Your task to perform on an android device: add a label to a message in the gmail app Image 0: 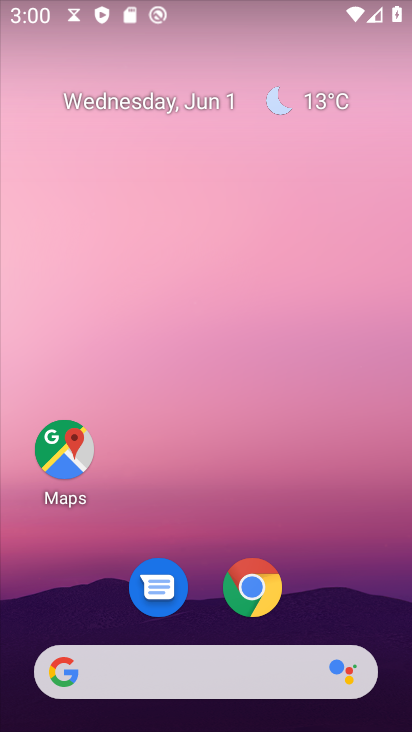
Step 0: drag from (217, 274) to (170, 2)
Your task to perform on an android device: add a label to a message in the gmail app Image 1: 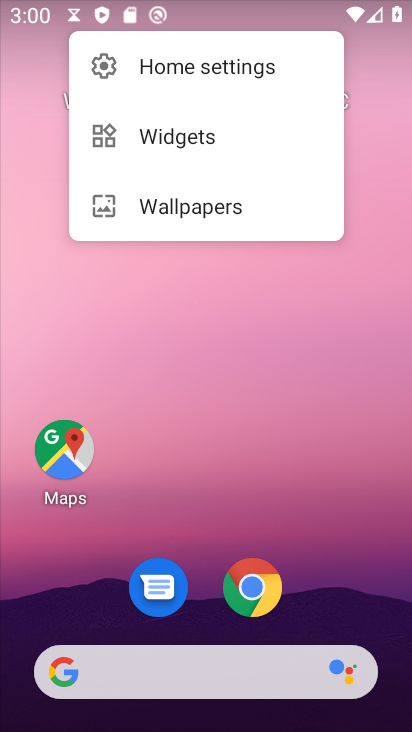
Step 1: drag from (167, 6) to (187, 141)
Your task to perform on an android device: add a label to a message in the gmail app Image 2: 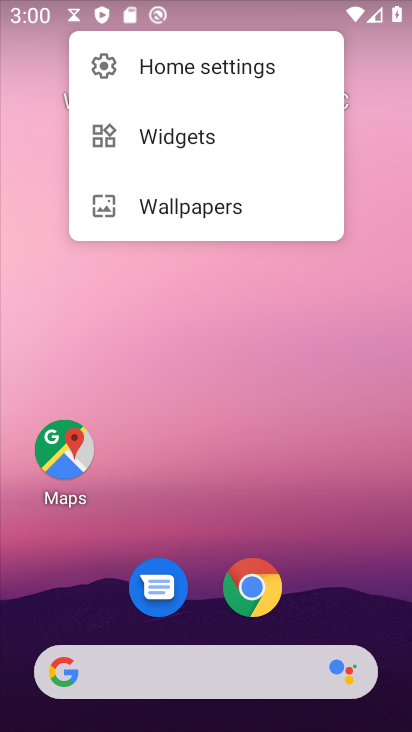
Step 2: click (181, 320)
Your task to perform on an android device: add a label to a message in the gmail app Image 3: 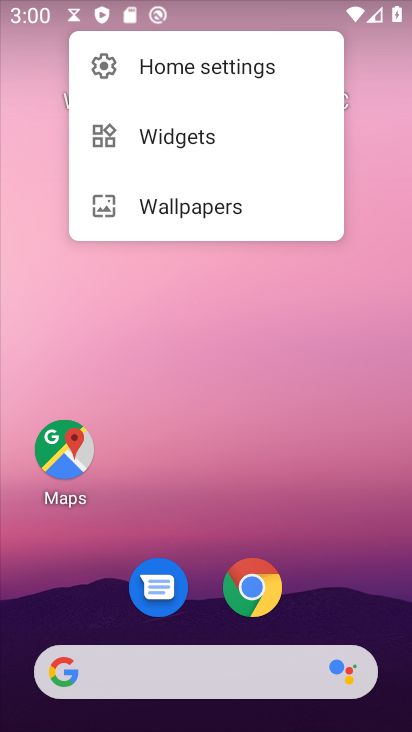
Step 3: click (182, 313)
Your task to perform on an android device: add a label to a message in the gmail app Image 4: 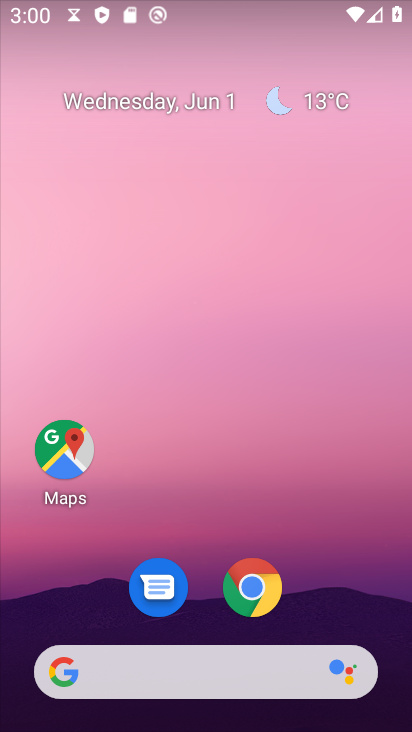
Step 4: press back button
Your task to perform on an android device: add a label to a message in the gmail app Image 5: 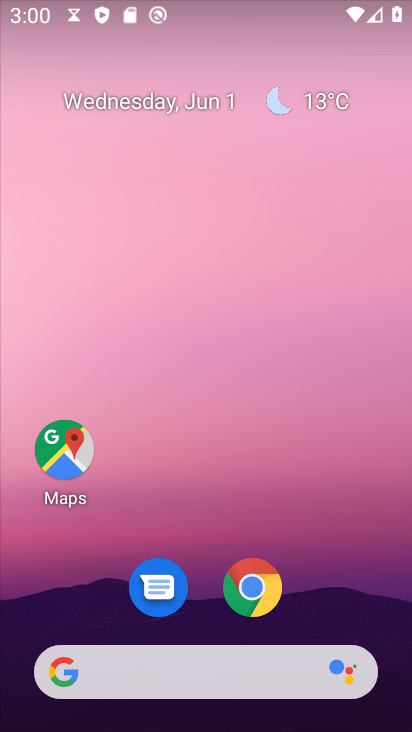
Step 5: drag from (251, 558) to (213, 257)
Your task to perform on an android device: add a label to a message in the gmail app Image 6: 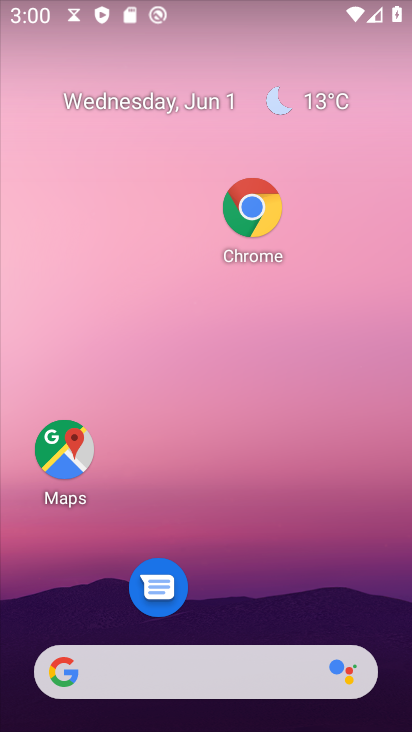
Step 6: drag from (222, 355) to (218, 273)
Your task to perform on an android device: add a label to a message in the gmail app Image 7: 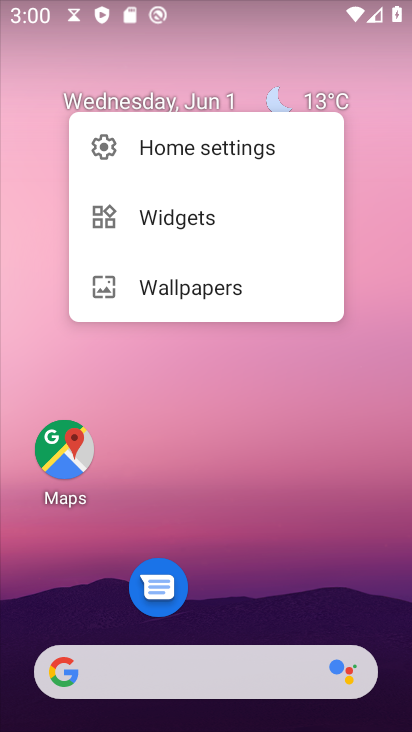
Step 7: drag from (271, 615) to (139, 78)
Your task to perform on an android device: add a label to a message in the gmail app Image 8: 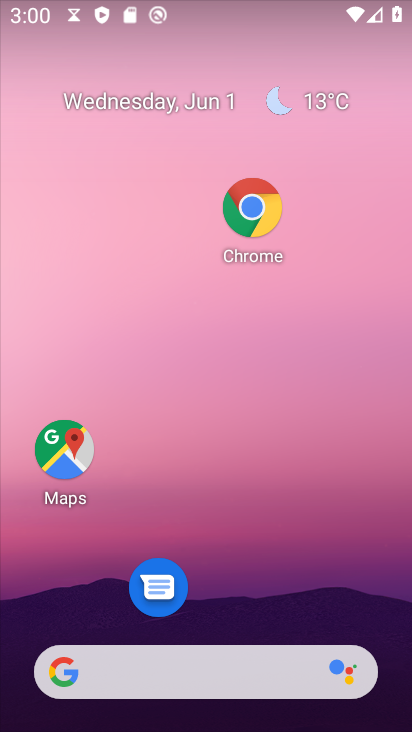
Step 8: click (206, 239)
Your task to perform on an android device: add a label to a message in the gmail app Image 9: 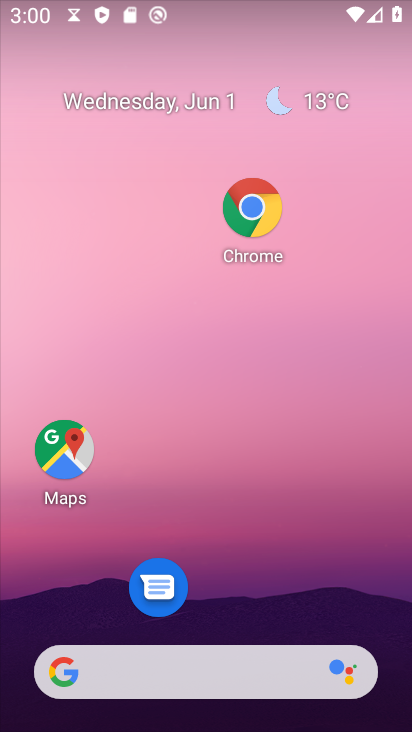
Step 9: drag from (144, 238) to (175, 129)
Your task to perform on an android device: add a label to a message in the gmail app Image 10: 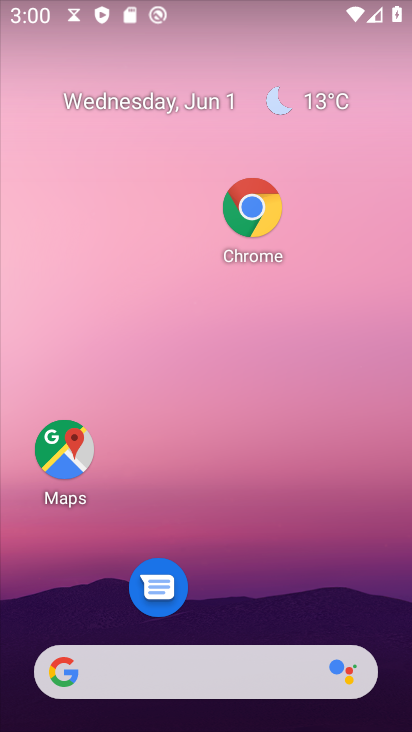
Step 10: drag from (242, 380) to (242, 121)
Your task to perform on an android device: add a label to a message in the gmail app Image 11: 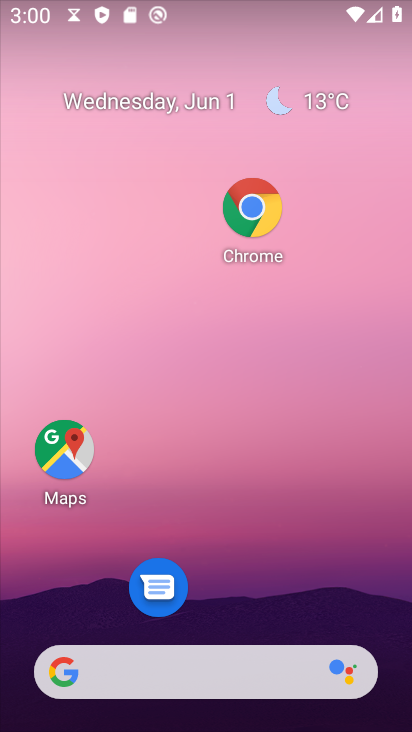
Step 11: click (254, 158)
Your task to perform on an android device: add a label to a message in the gmail app Image 12: 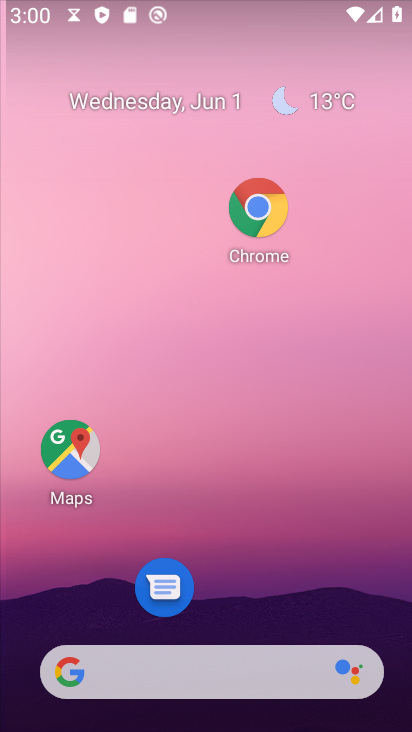
Step 12: press back button
Your task to perform on an android device: add a label to a message in the gmail app Image 13: 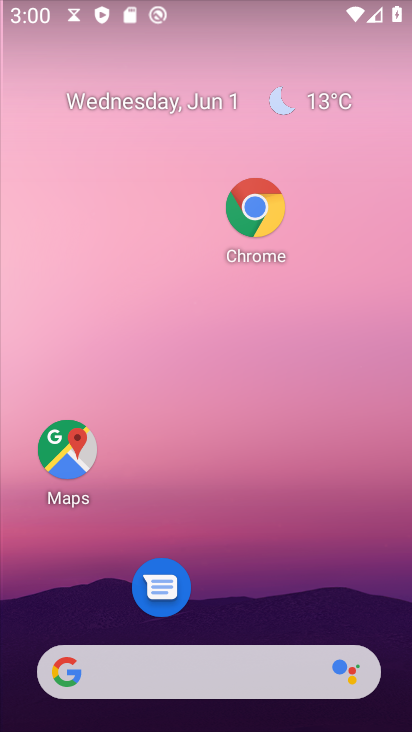
Step 13: click (163, 251)
Your task to perform on an android device: add a label to a message in the gmail app Image 14: 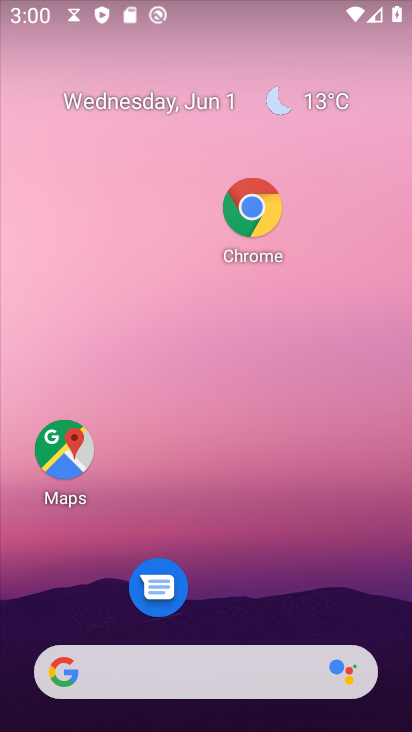
Step 14: drag from (124, 162) to (219, 81)
Your task to perform on an android device: add a label to a message in the gmail app Image 15: 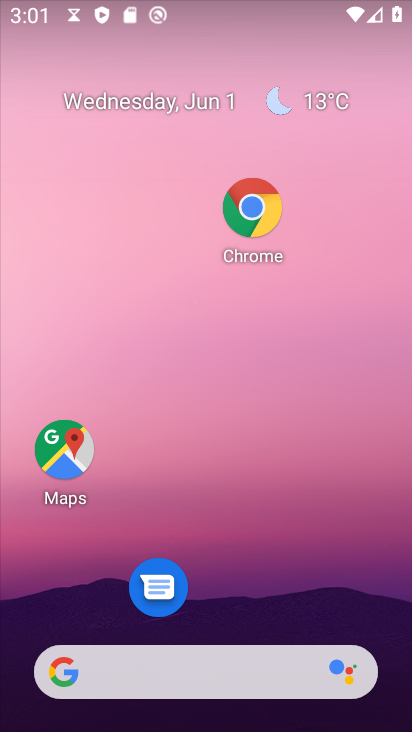
Step 15: drag from (270, 490) to (210, 94)
Your task to perform on an android device: add a label to a message in the gmail app Image 16: 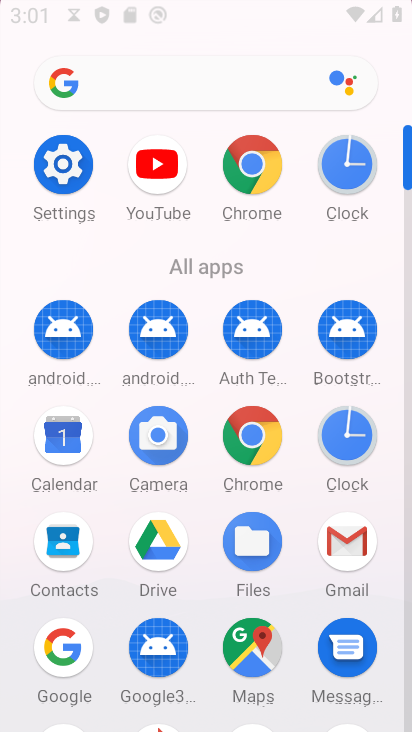
Step 16: drag from (293, 509) to (205, 19)
Your task to perform on an android device: add a label to a message in the gmail app Image 17: 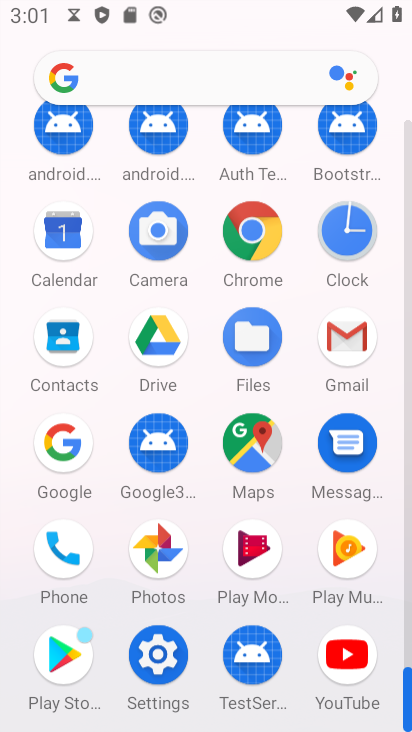
Step 17: drag from (251, 383) to (156, 5)
Your task to perform on an android device: add a label to a message in the gmail app Image 18: 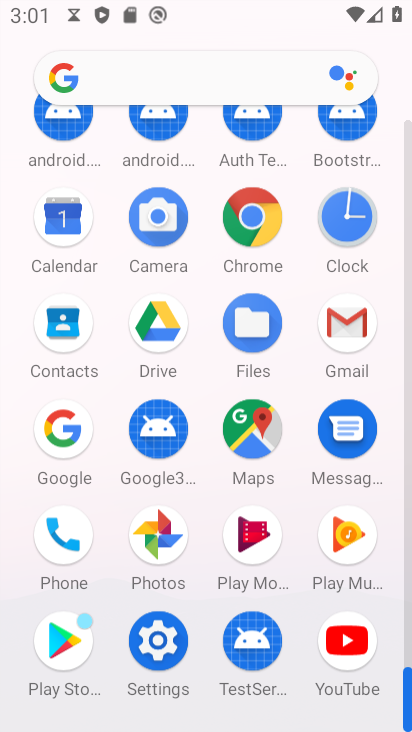
Step 18: click (222, 16)
Your task to perform on an android device: add a label to a message in the gmail app Image 19: 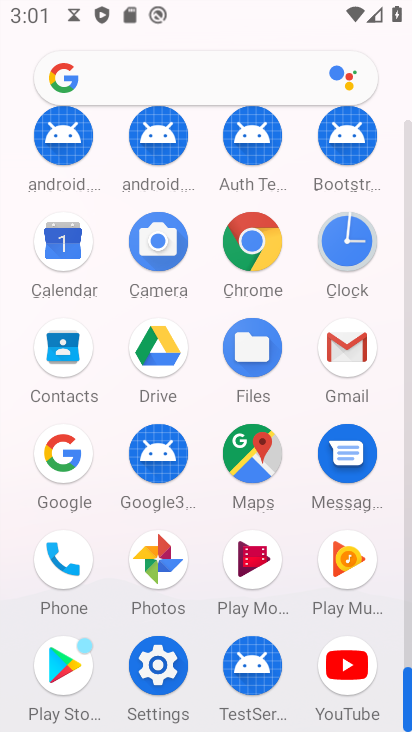
Step 19: click (338, 343)
Your task to perform on an android device: add a label to a message in the gmail app Image 20: 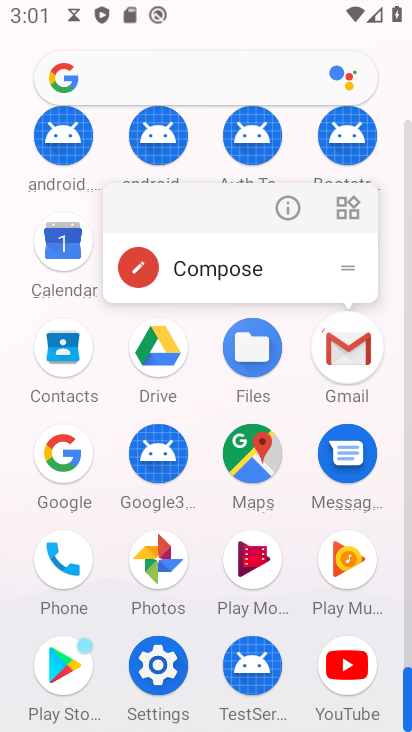
Step 20: click (338, 343)
Your task to perform on an android device: add a label to a message in the gmail app Image 21: 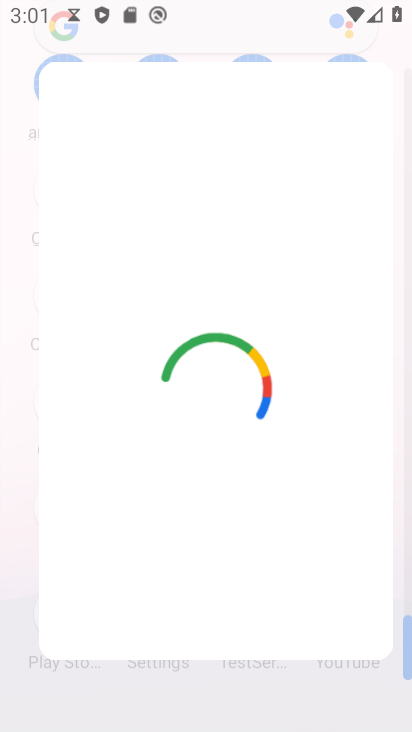
Step 21: click (339, 344)
Your task to perform on an android device: add a label to a message in the gmail app Image 22: 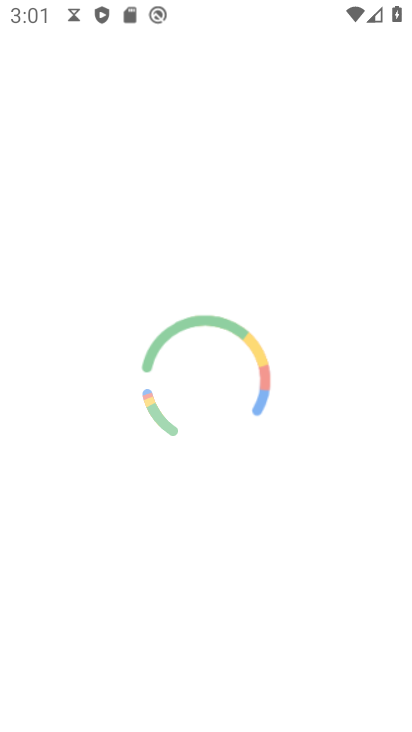
Step 22: click (339, 344)
Your task to perform on an android device: add a label to a message in the gmail app Image 23: 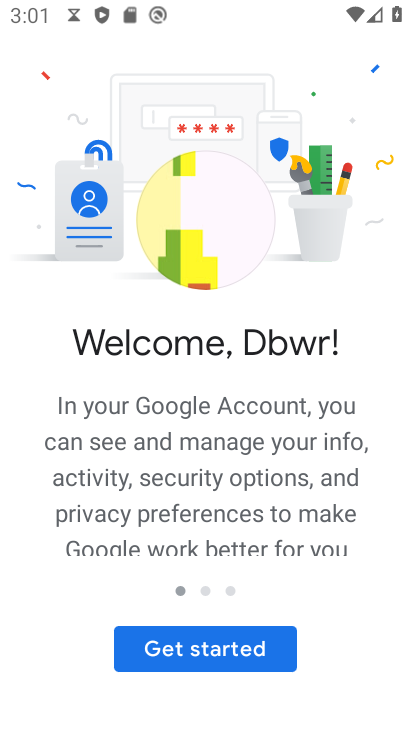
Step 23: click (196, 634)
Your task to perform on an android device: add a label to a message in the gmail app Image 24: 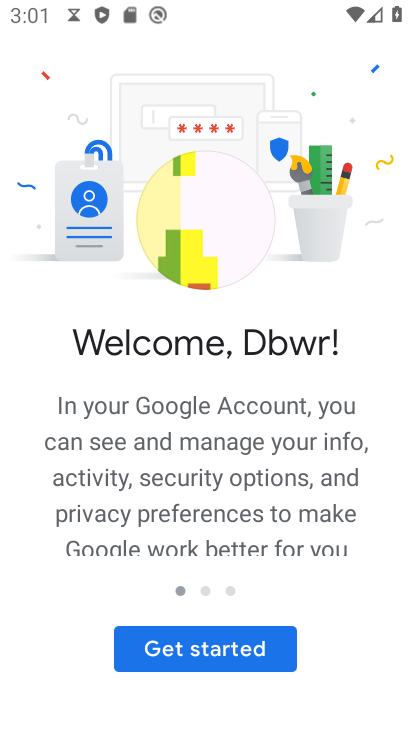
Step 24: click (193, 644)
Your task to perform on an android device: add a label to a message in the gmail app Image 25: 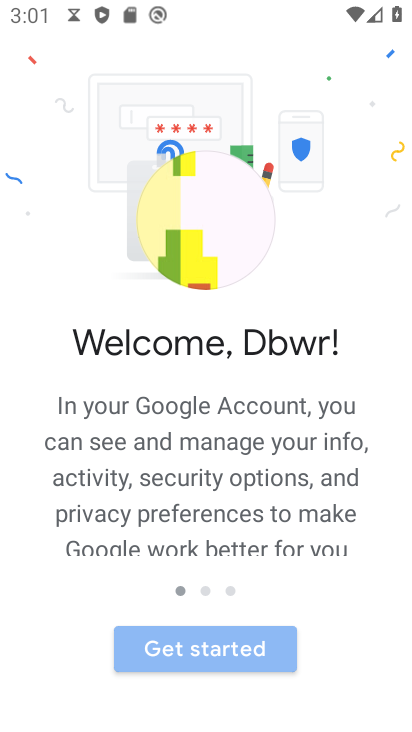
Step 25: click (193, 644)
Your task to perform on an android device: add a label to a message in the gmail app Image 26: 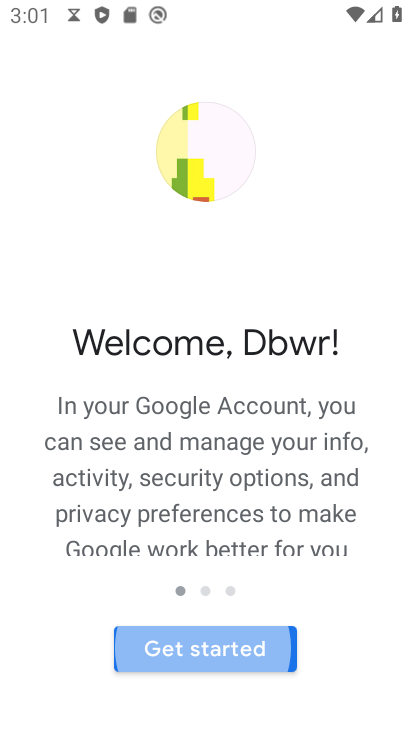
Step 26: click (193, 645)
Your task to perform on an android device: add a label to a message in the gmail app Image 27: 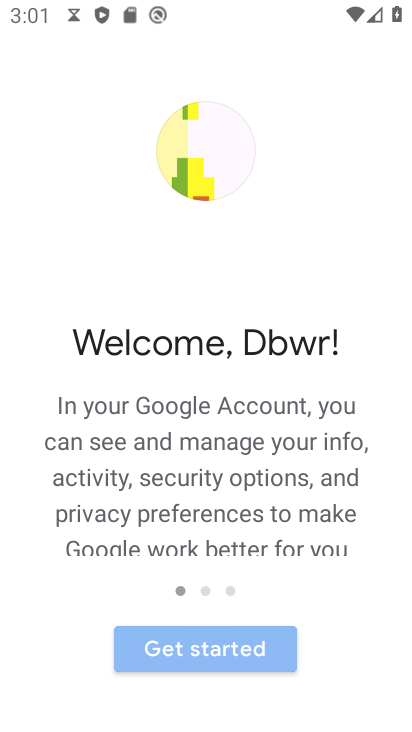
Step 27: click (193, 645)
Your task to perform on an android device: add a label to a message in the gmail app Image 28: 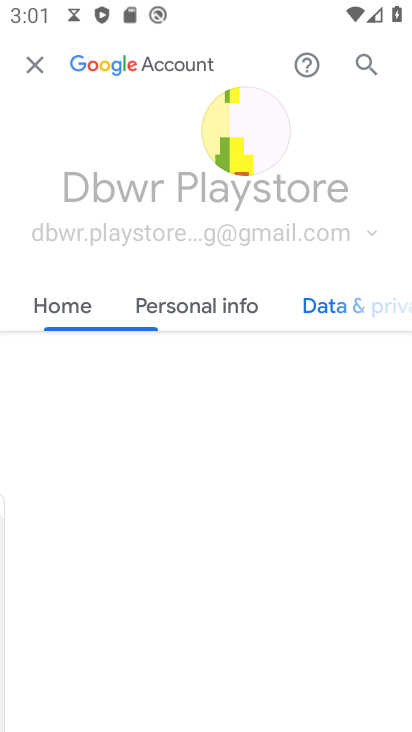
Step 28: click (202, 651)
Your task to perform on an android device: add a label to a message in the gmail app Image 29: 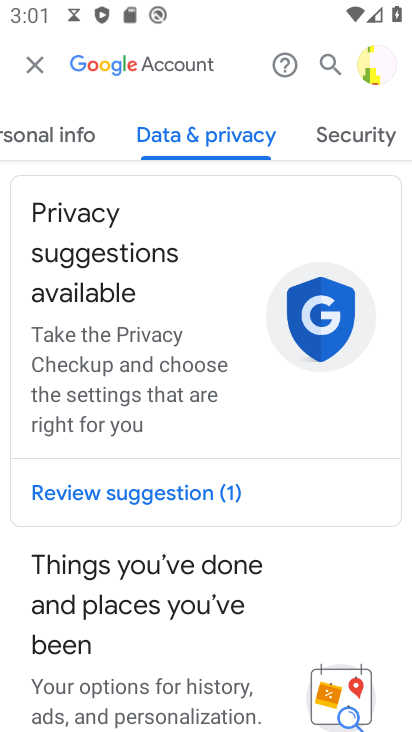
Step 29: drag from (257, 630) to (185, 152)
Your task to perform on an android device: add a label to a message in the gmail app Image 30: 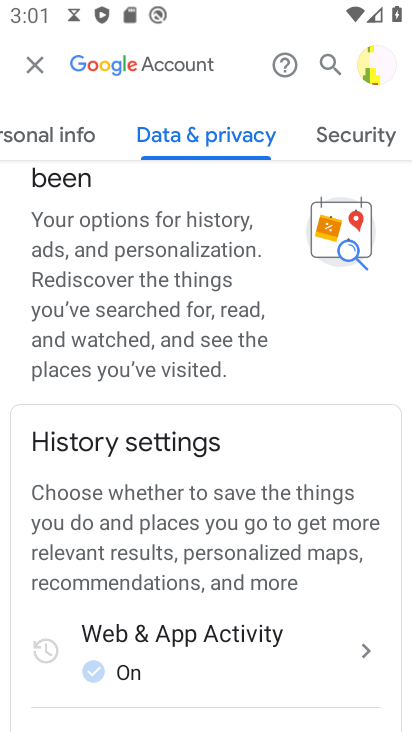
Step 30: drag from (260, 524) to (209, 177)
Your task to perform on an android device: add a label to a message in the gmail app Image 31: 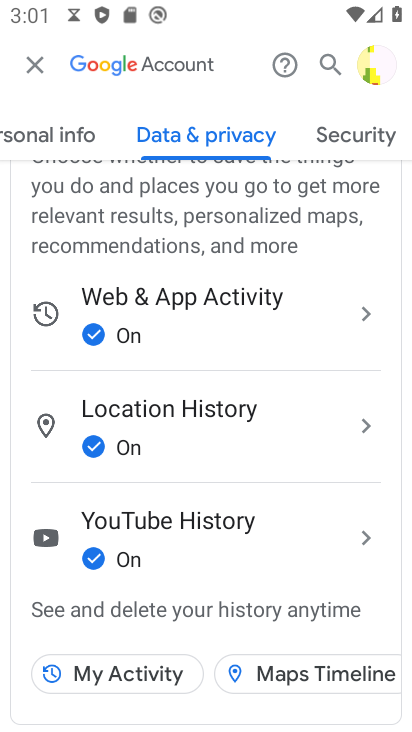
Step 31: drag from (209, 548) to (121, 115)
Your task to perform on an android device: add a label to a message in the gmail app Image 32: 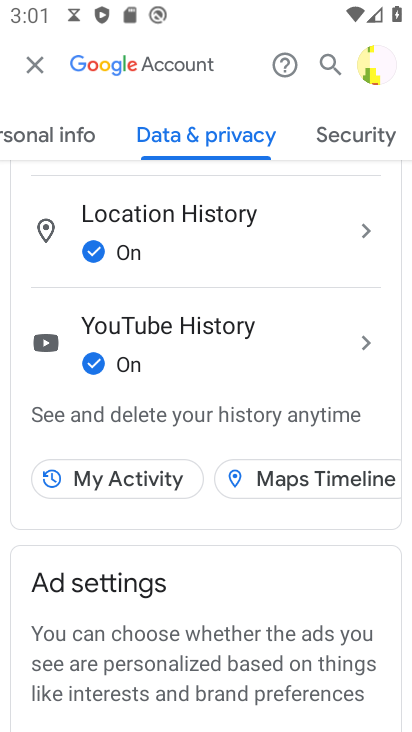
Step 32: drag from (106, 478) to (118, 140)
Your task to perform on an android device: add a label to a message in the gmail app Image 33: 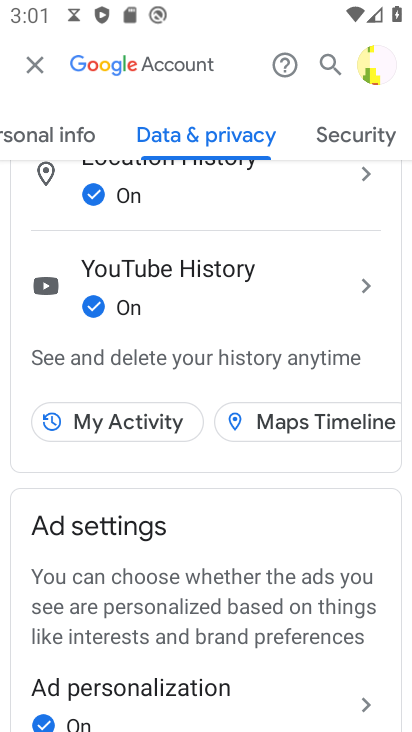
Step 33: drag from (226, 492) to (218, 255)
Your task to perform on an android device: add a label to a message in the gmail app Image 34: 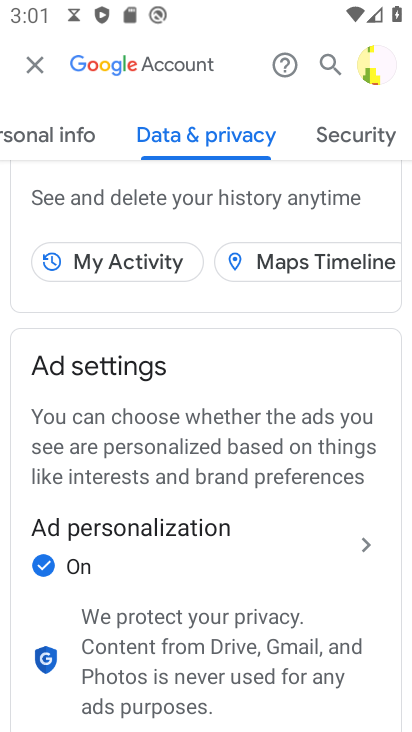
Step 34: drag from (281, 576) to (225, 322)
Your task to perform on an android device: add a label to a message in the gmail app Image 35: 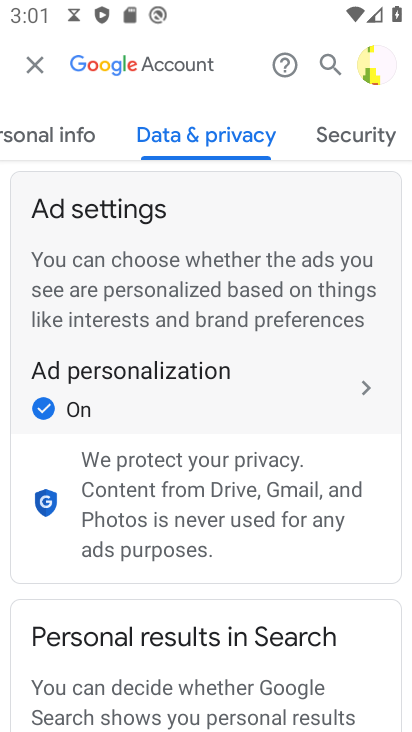
Step 35: drag from (264, 592) to (249, 284)
Your task to perform on an android device: add a label to a message in the gmail app Image 36: 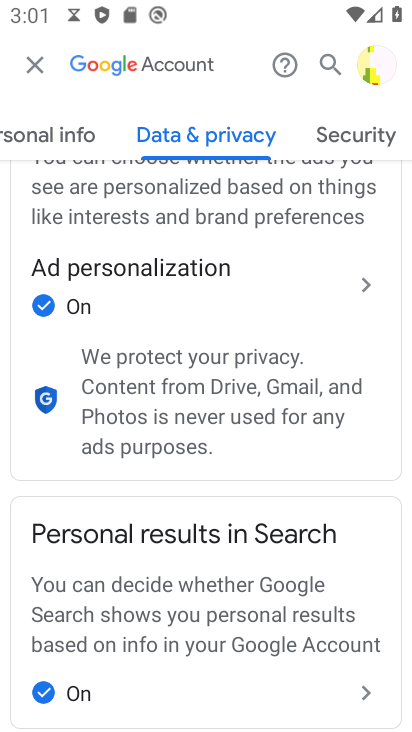
Step 36: drag from (240, 491) to (219, 226)
Your task to perform on an android device: add a label to a message in the gmail app Image 37: 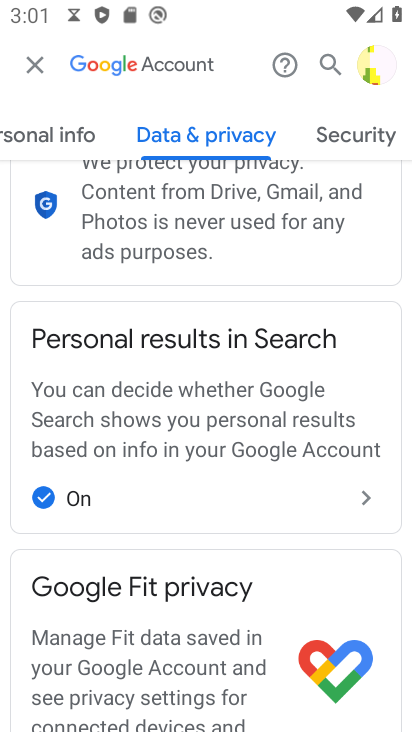
Step 37: drag from (229, 531) to (226, 148)
Your task to perform on an android device: add a label to a message in the gmail app Image 38: 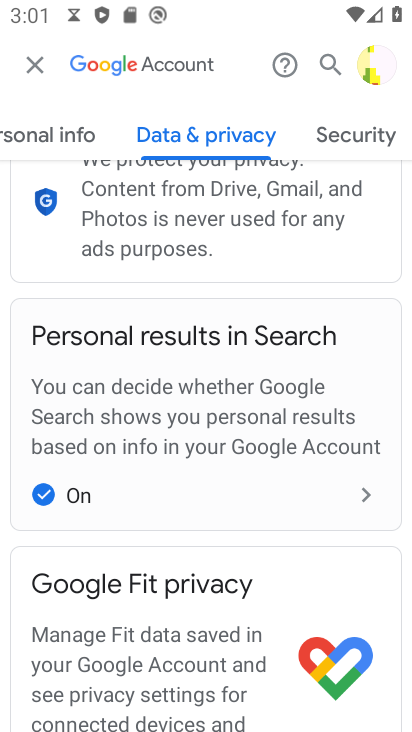
Step 38: drag from (226, 435) to (250, 318)
Your task to perform on an android device: add a label to a message in the gmail app Image 39: 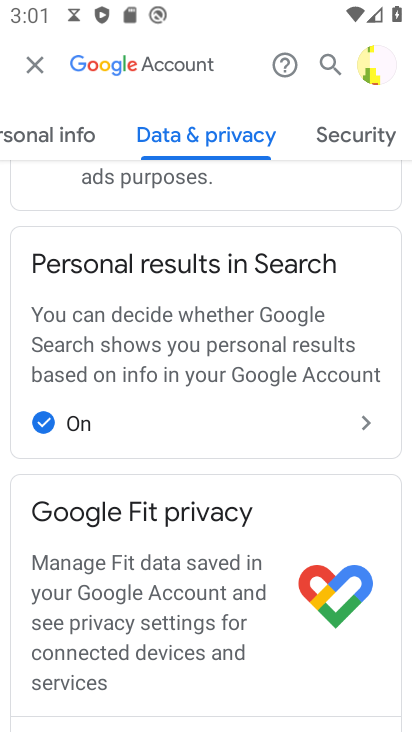
Step 39: click (203, 347)
Your task to perform on an android device: add a label to a message in the gmail app Image 40: 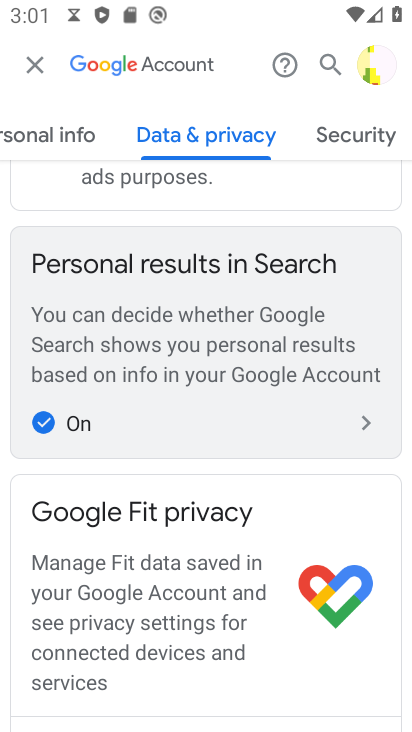
Step 40: drag from (203, 412) to (203, 320)
Your task to perform on an android device: add a label to a message in the gmail app Image 41: 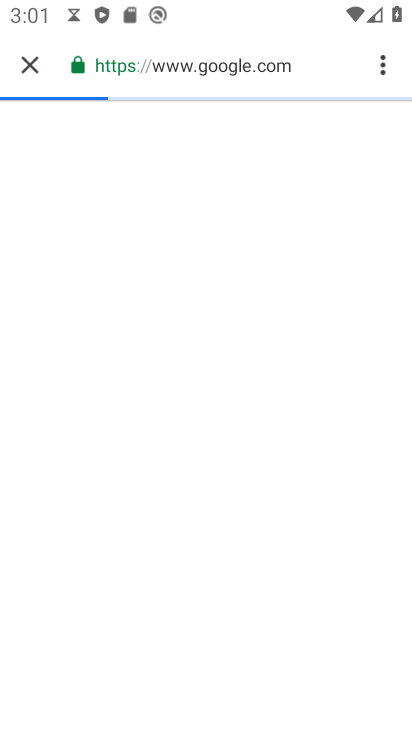
Step 41: click (213, 268)
Your task to perform on an android device: add a label to a message in the gmail app Image 42: 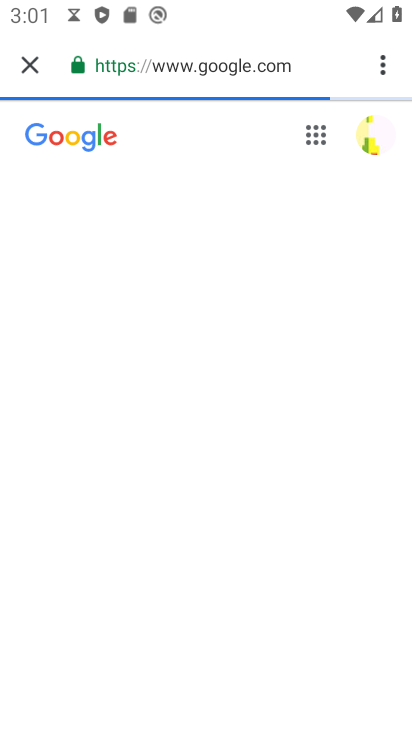
Step 42: click (180, 336)
Your task to perform on an android device: add a label to a message in the gmail app Image 43: 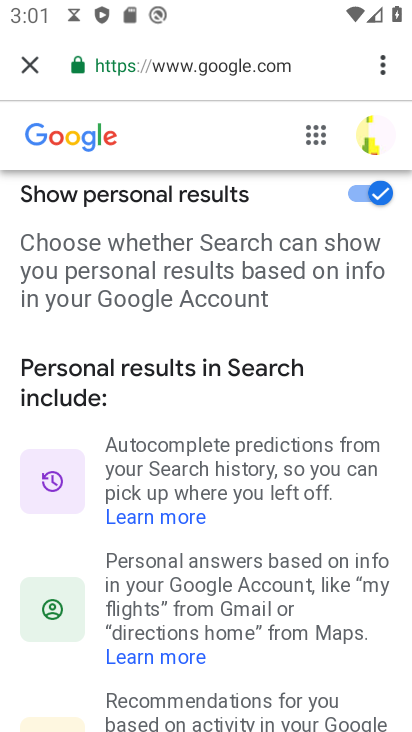
Step 43: click (365, 349)
Your task to perform on an android device: add a label to a message in the gmail app Image 44: 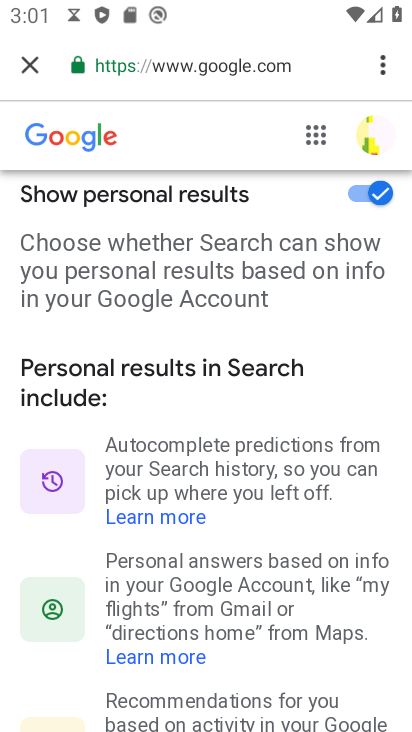
Step 44: click (27, 61)
Your task to perform on an android device: add a label to a message in the gmail app Image 45: 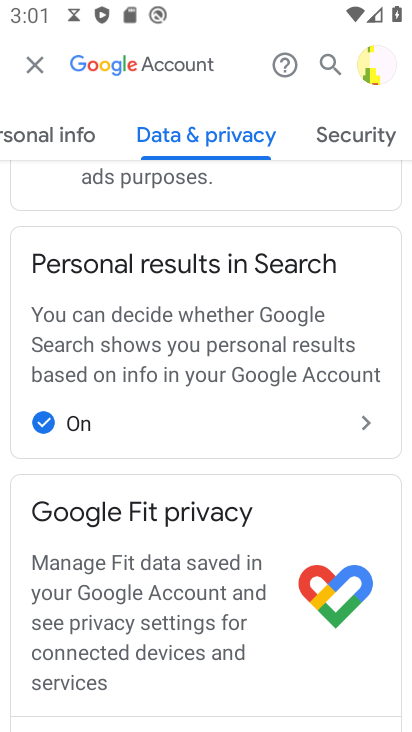
Step 45: click (34, 65)
Your task to perform on an android device: add a label to a message in the gmail app Image 46: 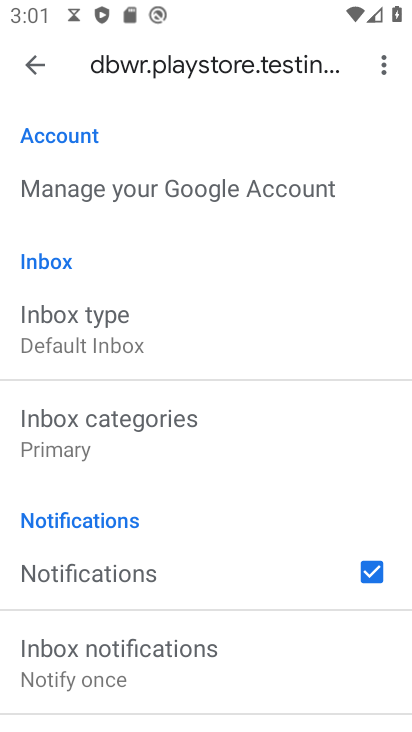
Step 46: click (30, 61)
Your task to perform on an android device: add a label to a message in the gmail app Image 47: 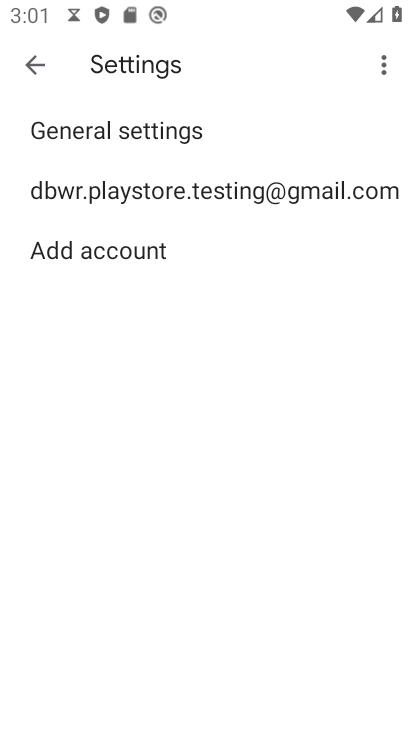
Step 47: click (31, 53)
Your task to perform on an android device: add a label to a message in the gmail app Image 48: 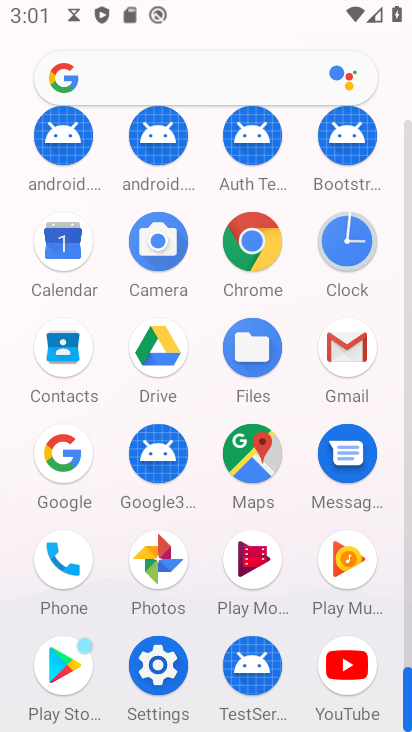
Step 48: click (341, 339)
Your task to perform on an android device: add a label to a message in the gmail app Image 49: 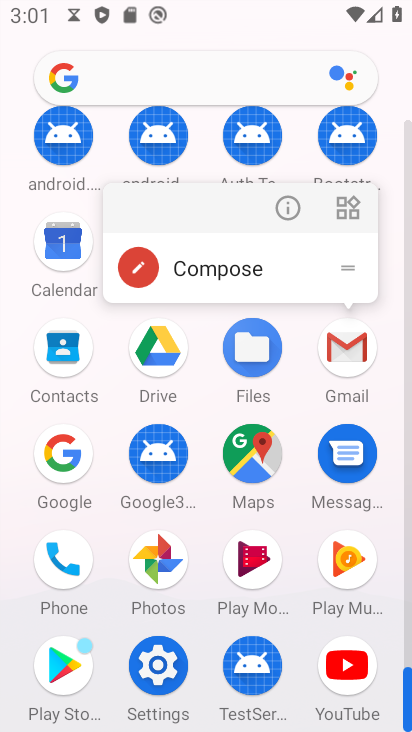
Step 49: click (341, 339)
Your task to perform on an android device: add a label to a message in the gmail app Image 50: 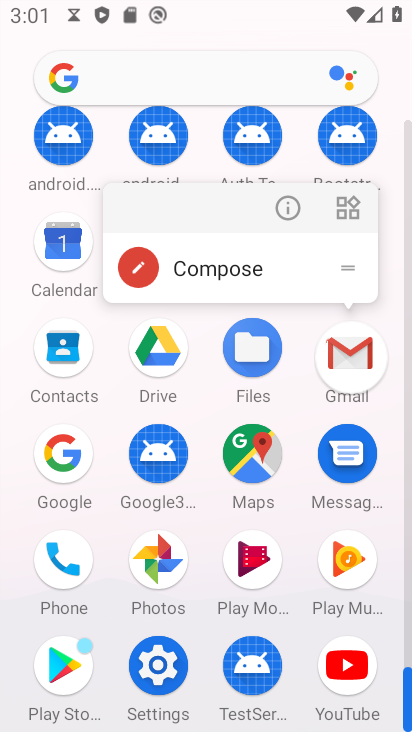
Step 50: click (345, 349)
Your task to perform on an android device: add a label to a message in the gmail app Image 51: 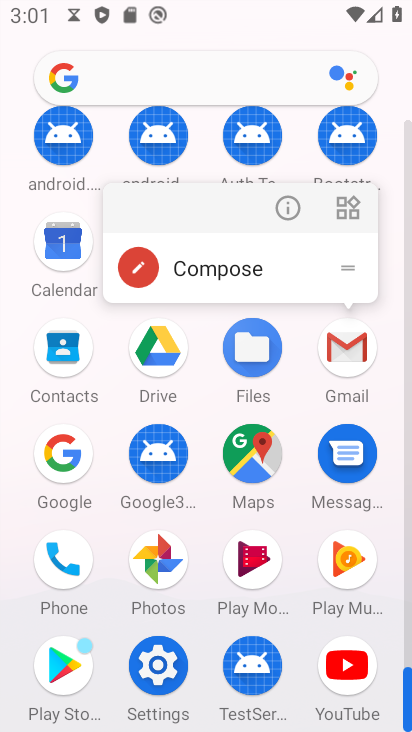
Step 51: click (346, 349)
Your task to perform on an android device: add a label to a message in the gmail app Image 52: 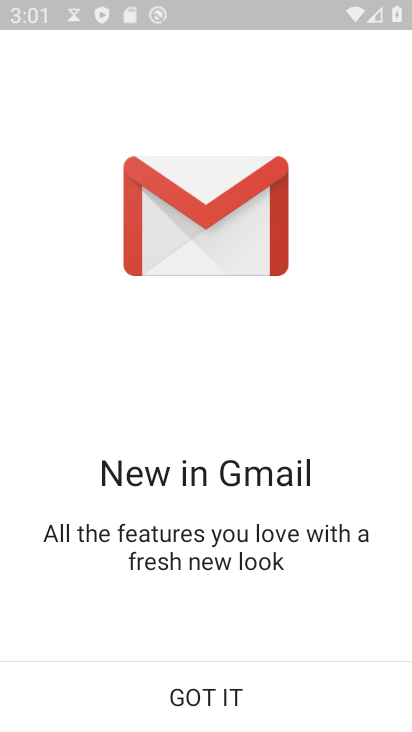
Step 52: click (346, 349)
Your task to perform on an android device: add a label to a message in the gmail app Image 53: 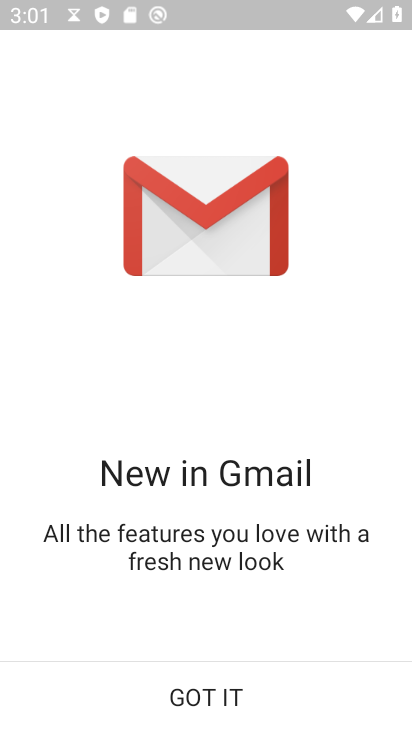
Step 53: click (196, 693)
Your task to perform on an android device: add a label to a message in the gmail app Image 54: 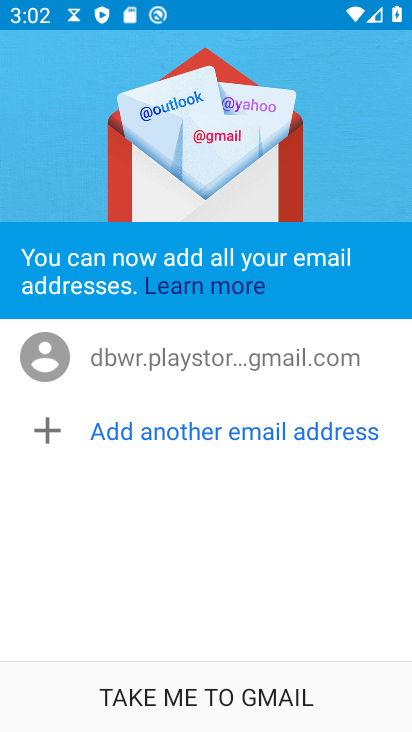
Step 54: click (202, 686)
Your task to perform on an android device: add a label to a message in the gmail app Image 55: 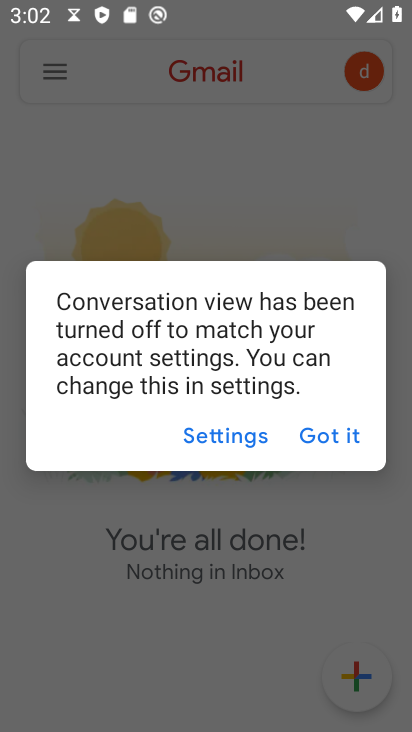
Step 55: click (313, 431)
Your task to perform on an android device: add a label to a message in the gmail app Image 56: 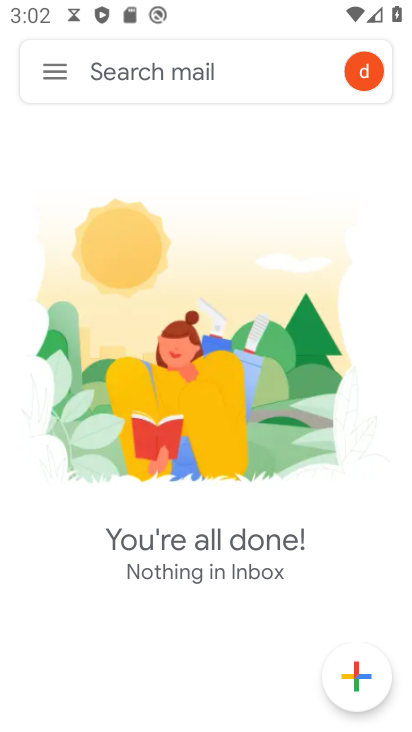
Step 56: click (48, 71)
Your task to perform on an android device: add a label to a message in the gmail app Image 57: 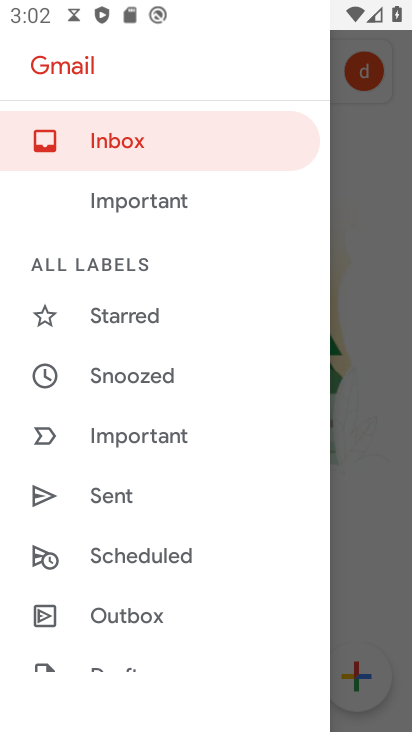
Step 57: drag from (135, 567) to (118, 196)
Your task to perform on an android device: add a label to a message in the gmail app Image 58: 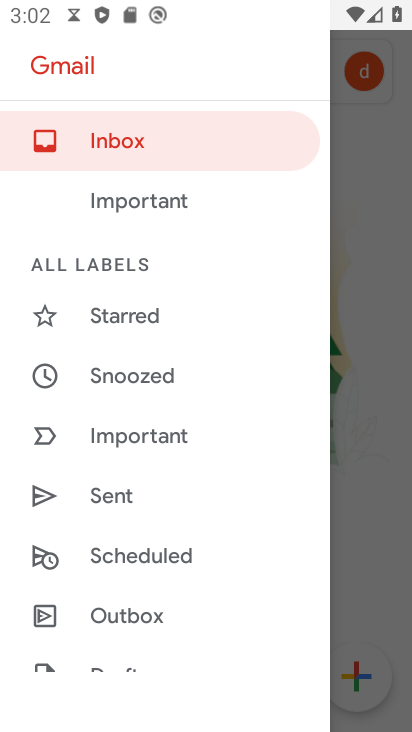
Step 58: drag from (152, 457) to (131, 202)
Your task to perform on an android device: add a label to a message in the gmail app Image 59: 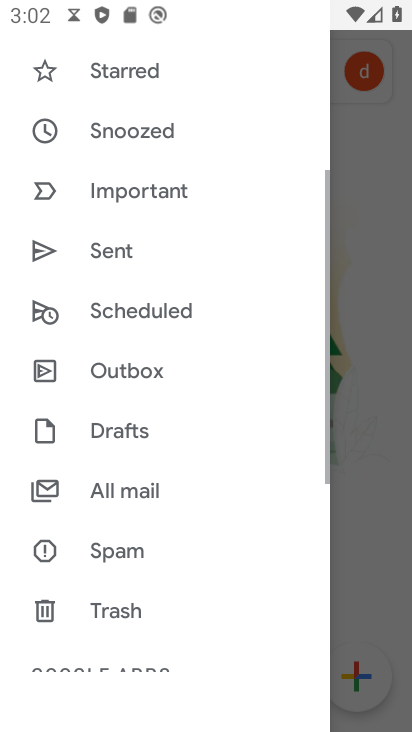
Step 59: drag from (158, 476) to (146, 234)
Your task to perform on an android device: add a label to a message in the gmail app Image 60: 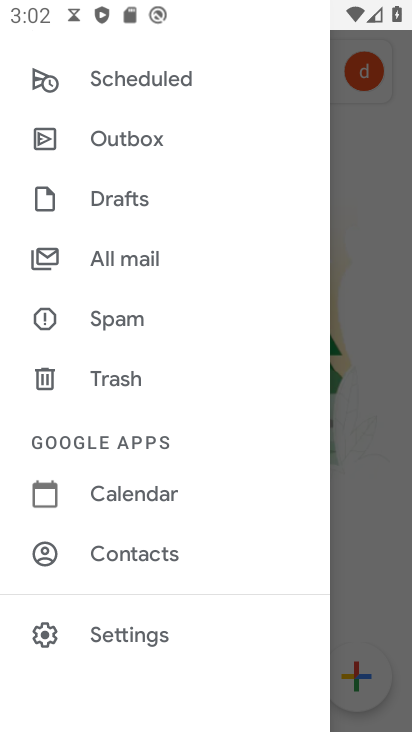
Step 60: click (123, 265)
Your task to perform on an android device: add a label to a message in the gmail app Image 61: 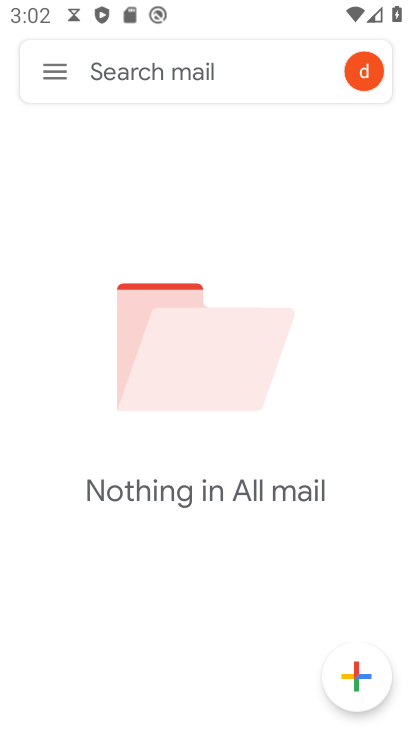
Step 61: task complete